Your task to perform on an android device: Show me popular games on the Play Store Image 0: 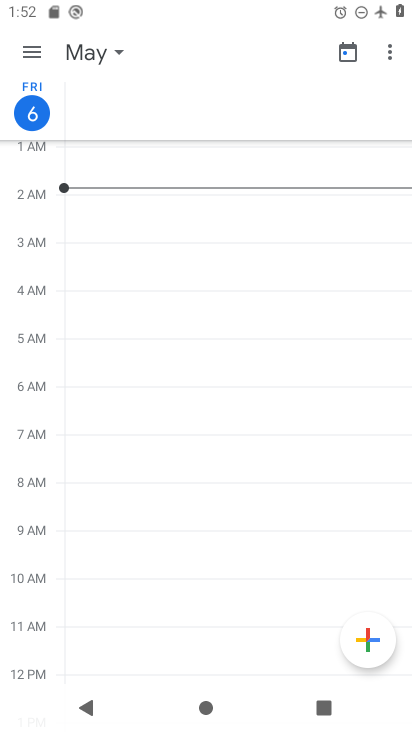
Step 0: press home button
Your task to perform on an android device: Show me popular games on the Play Store Image 1: 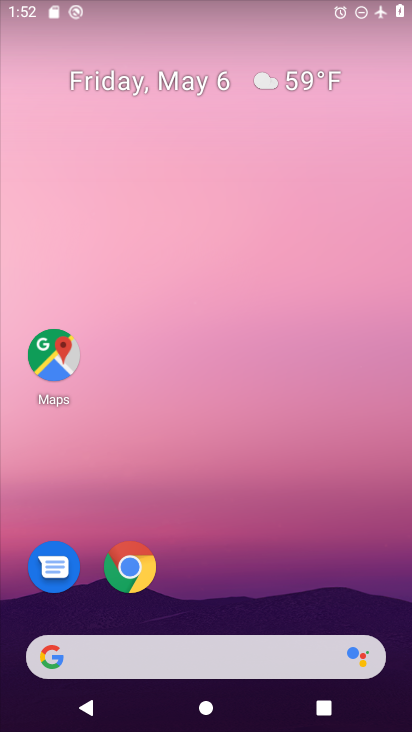
Step 1: drag from (237, 556) to (260, 48)
Your task to perform on an android device: Show me popular games on the Play Store Image 2: 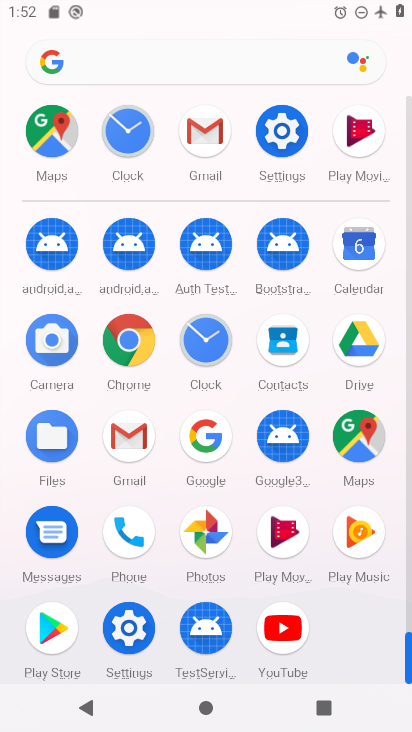
Step 2: click (43, 630)
Your task to perform on an android device: Show me popular games on the Play Store Image 3: 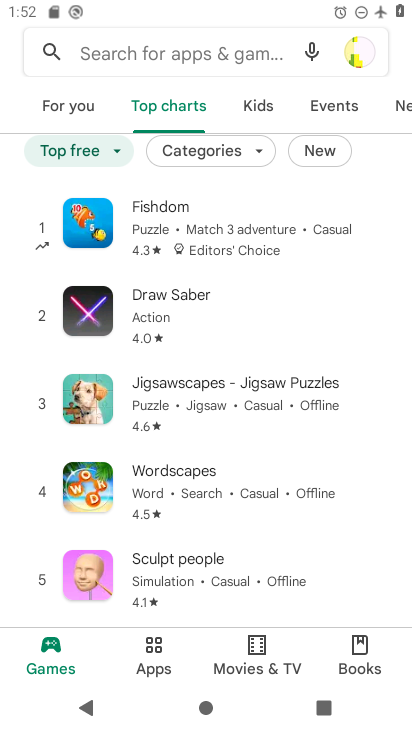
Step 3: task complete